Your task to perform on an android device: Open the calendar and show me this week's events? Image 0: 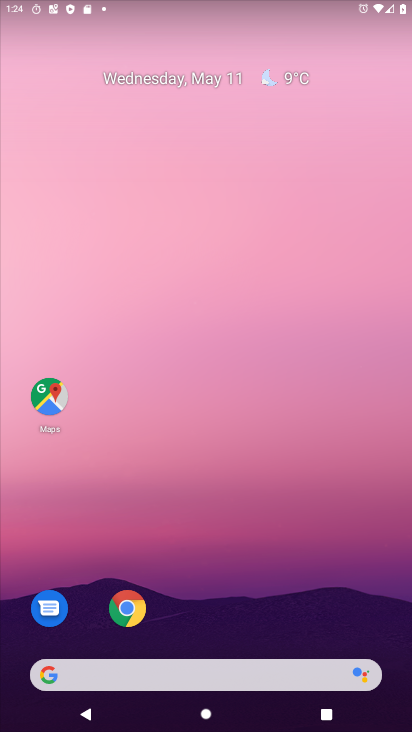
Step 0: drag from (169, 577) to (145, 161)
Your task to perform on an android device: Open the calendar and show me this week's events? Image 1: 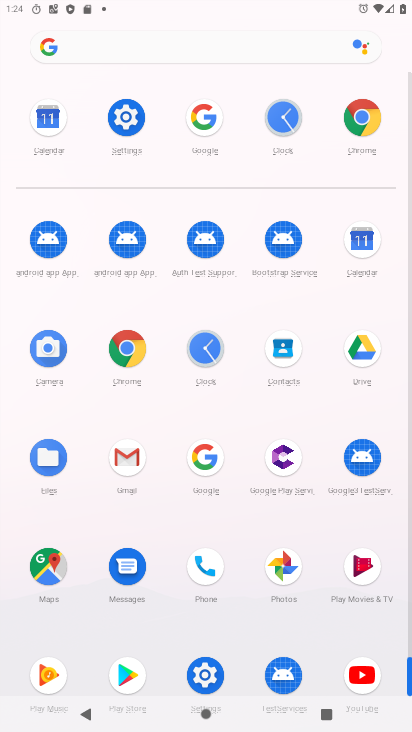
Step 1: drag from (220, 516) to (229, 245)
Your task to perform on an android device: Open the calendar and show me this week's events? Image 2: 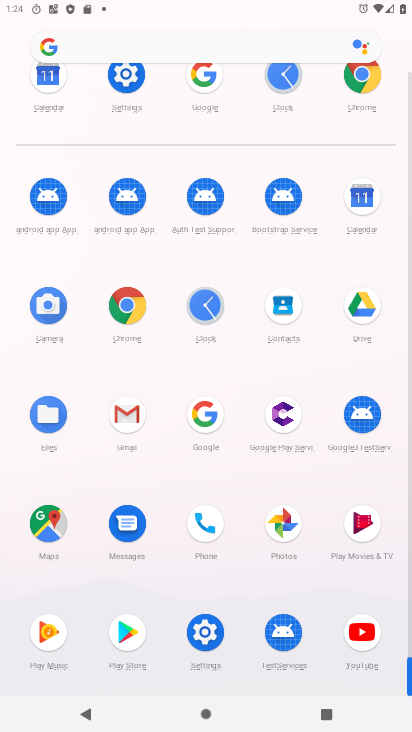
Step 2: click (359, 191)
Your task to perform on an android device: Open the calendar and show me this week's events? Image 3: 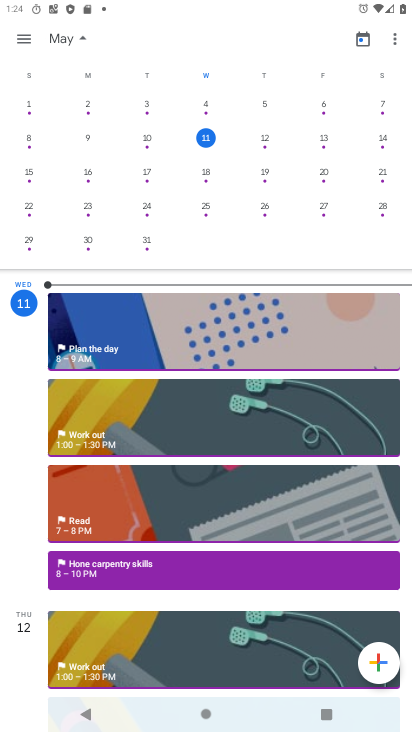
Step 3: task complete